Your task to perform on an android device: find photos in the google photos app Image 0: 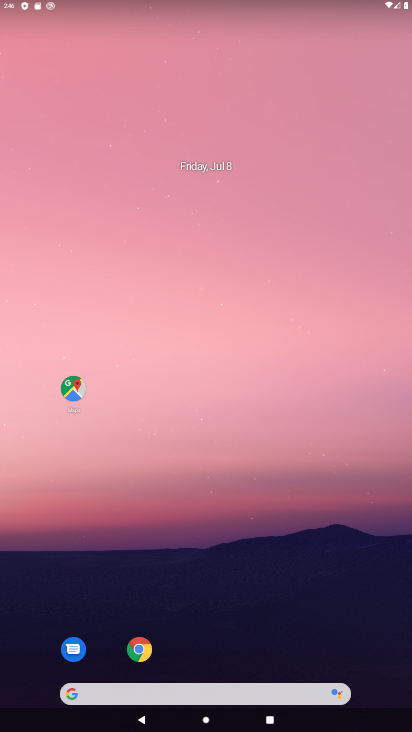
Step 0: drag from (199, 666) to (122, 143)
Your task to perform on an android device: find photos in the google photos app Image 1: 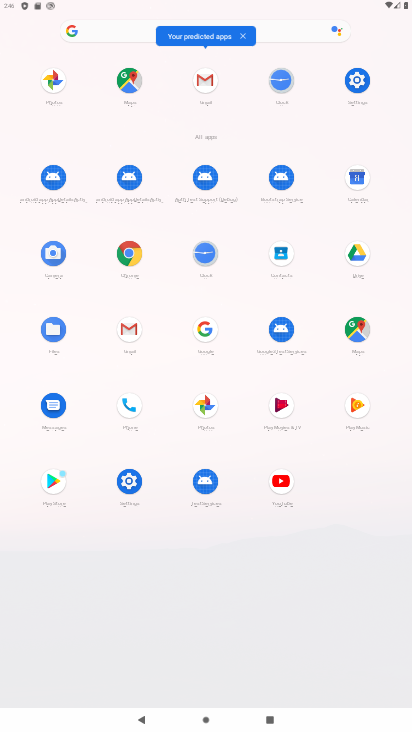
Step 1: click (211, 406)
Your task to perform on an android device: find photos in the google photos app Image 2: 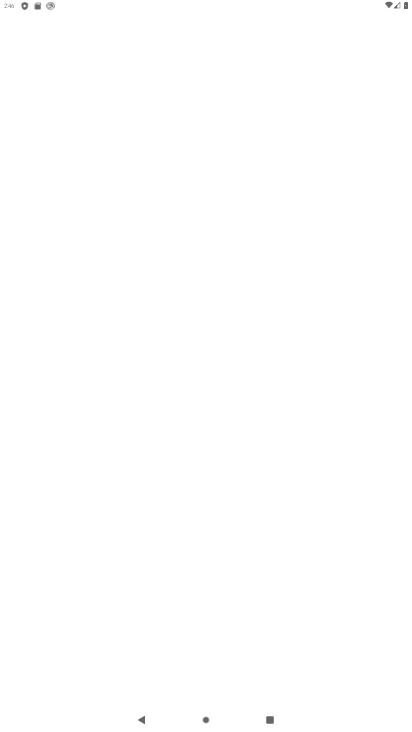
Step 2: drag from (184, 228) to (181, 376)
Your task to perform on an android device: find photos in the google photos app Image 3: 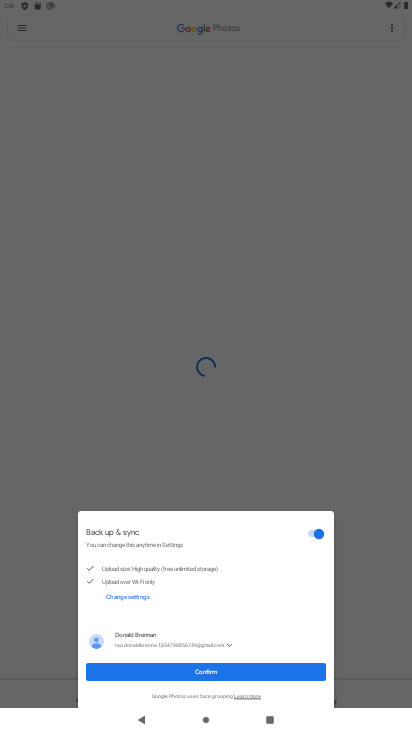
Step 3: click (193, 665)
Your task to perform on an android device: find photos in the google photos app Image 4: 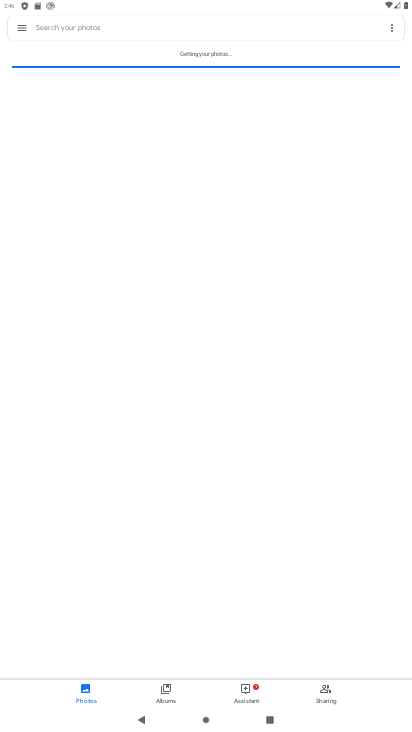
Step 4: task complete